Your task to perform on an android device: See recent photos Image 0: 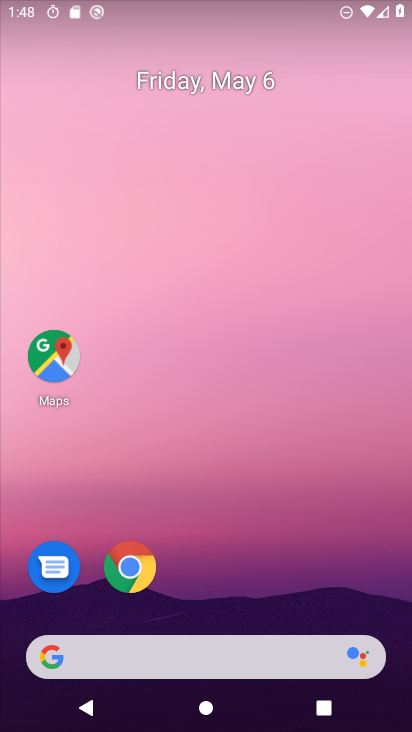
Step 0: drag from (265, 684) to (291, 137)
Your task to perform on an android device: See recent photos Image 1: 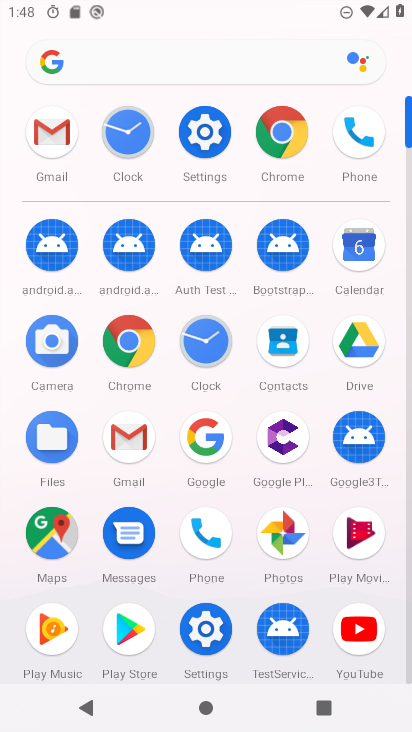
Step 1: click (285, 523)
Your task to perform on an android device: See recent photos Image 2: 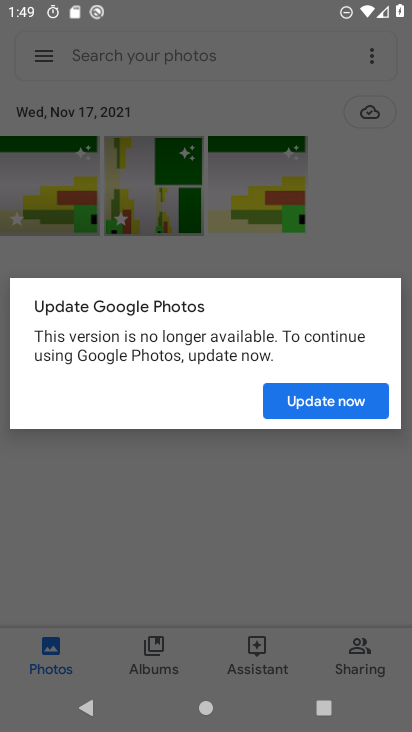
Step 2: click (314, 398)
Your task to perform on an android device: See recent photos Image 3: 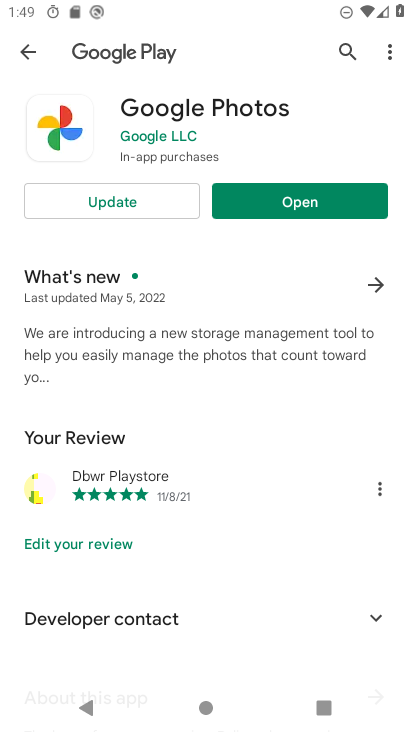
Step 3: click (110, 203)
Your task to perform on an android device: See recent photos Image 4: 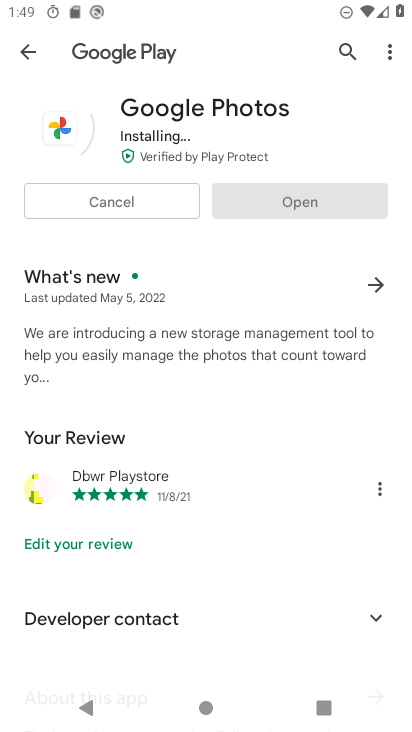
Step 4: click (312, 540)
Your task to perform on an android device: See recent photos Image 5: 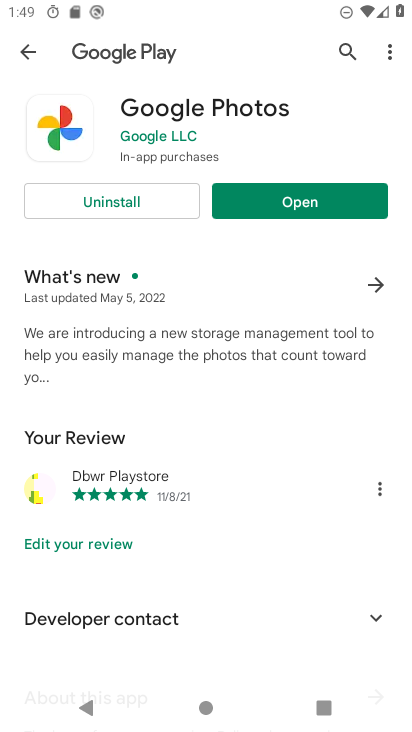
Step 5: click (283, 197)
Your task to perform on an android device: See recent photos Image 6: 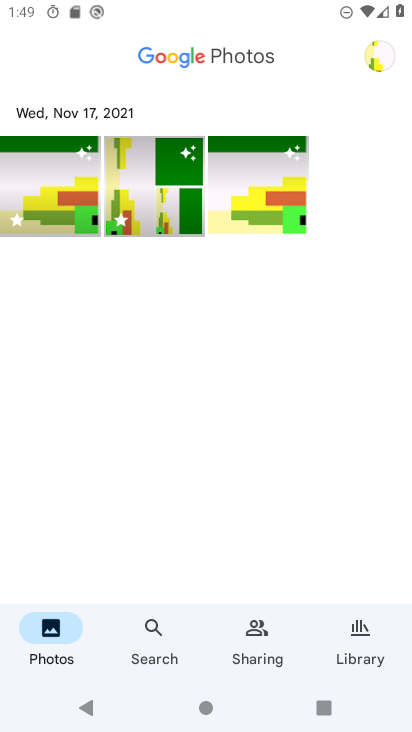
Step 6: task complete